Your task to perform on an android device: manage bookmarks in the chrome app Image 0: 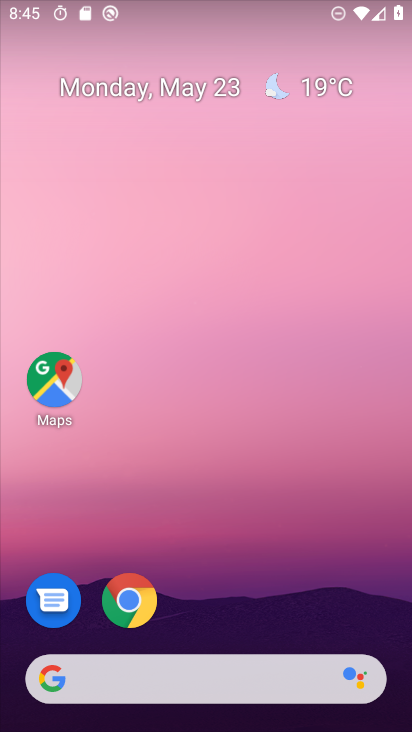
Step 0: click (129, 598)
Your task to perform on an android device: manage bookmarks in the chrome app Image 1: 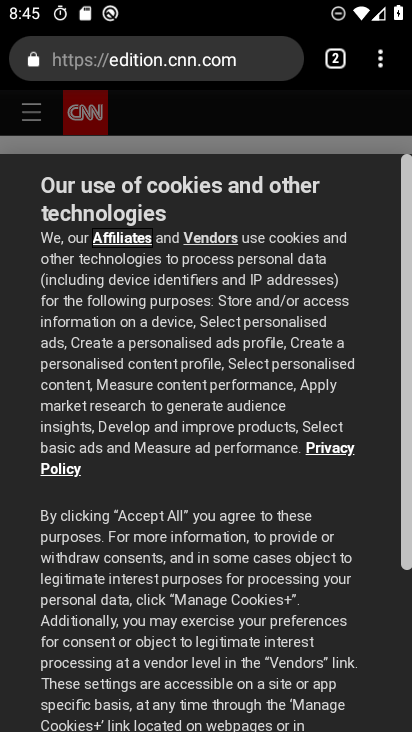
Step 1: click (382, 62)
Your task to perform on an android device: manage bookmarks in the chrome app Image 2: 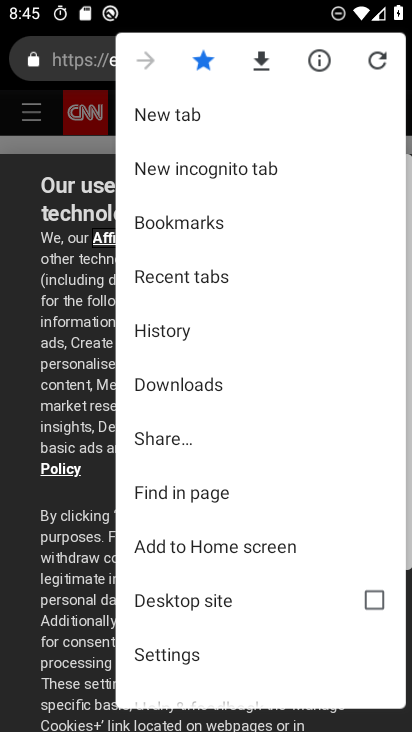
Step 2: click (210, 218)
Your task to perform on an android device: manage bookmarks in the chrome app Image 3: 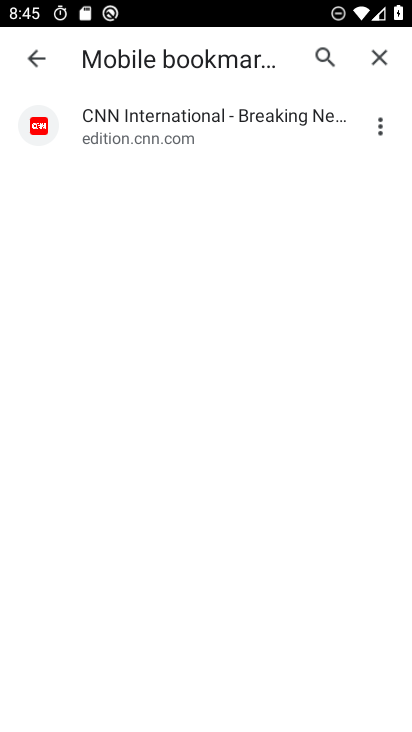
Step 3: task complete